Your task to perform on an android device: Go to network settings Image 0: 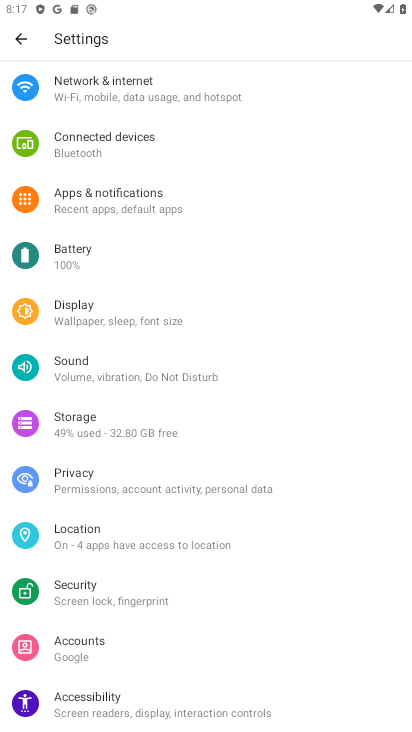
Step 0: click (176, 95)
Your task to perform on an android device: Go to network settings Image 1: 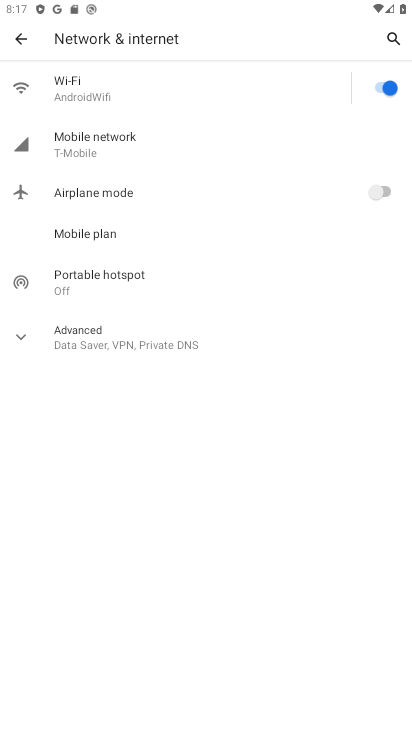
Step 1: click (209, 132)
Your task to perform on an android device: Go to network settings Image 2: 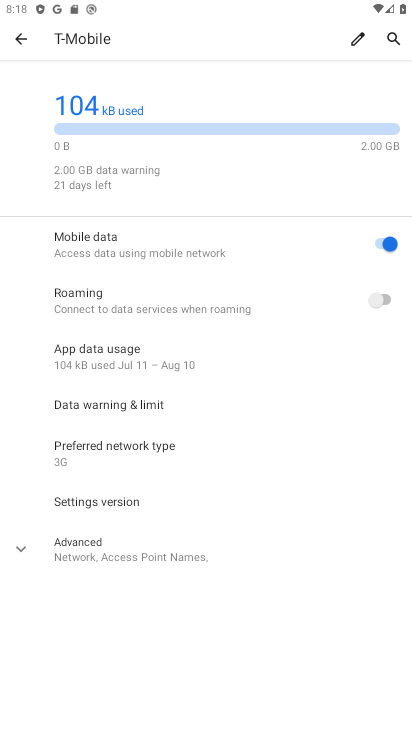
Step 2: task complete